Your task to perform on an android device: Go to CNN.com Image 0: 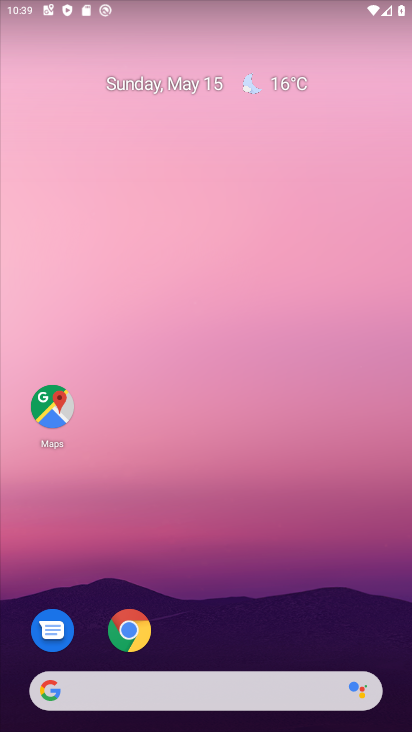
Step 0: click (125, 618)
Your task to perform on an android device: Go to CNN.com Image 1: 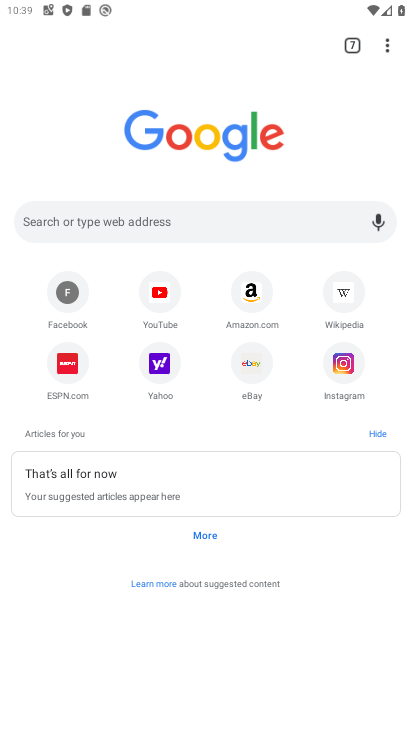
Step 1: click (212, 214)
Your task to perform on an android device: Go to CNN.com Image 2: 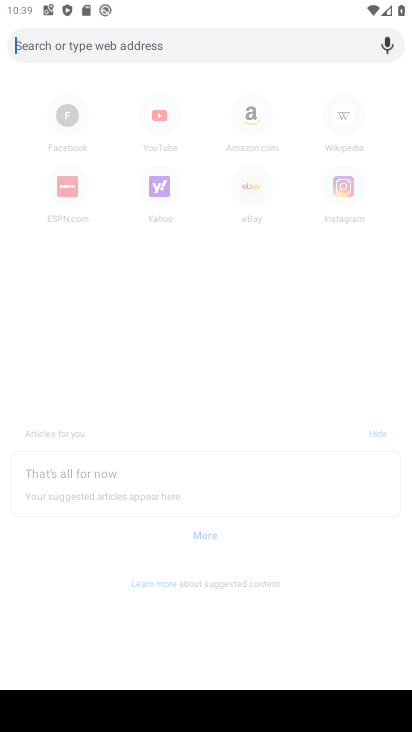
Step 2: type "CNN.com"
Your task to perform on an android device: Go to CNN.com Image 3: 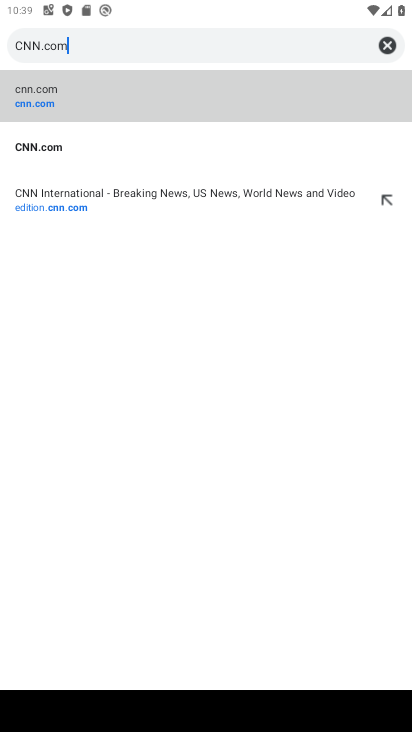
Step 3: click (92, 104)
Your task to perform on an android device: Go to CNN.com Image 4: 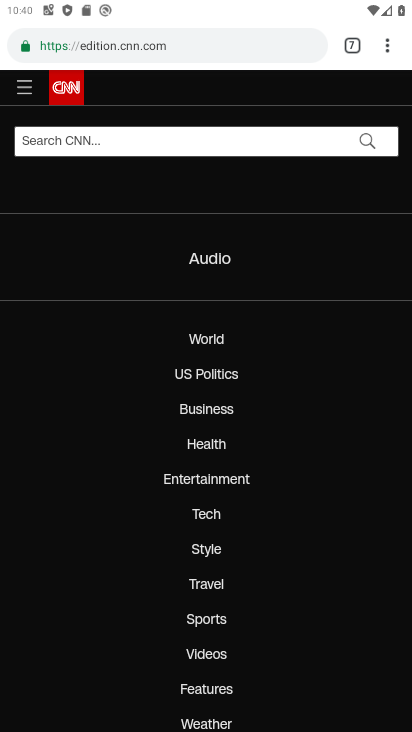
Step 4: task complete